Your task to perform on an android device: toggle airplane mode Image 0: 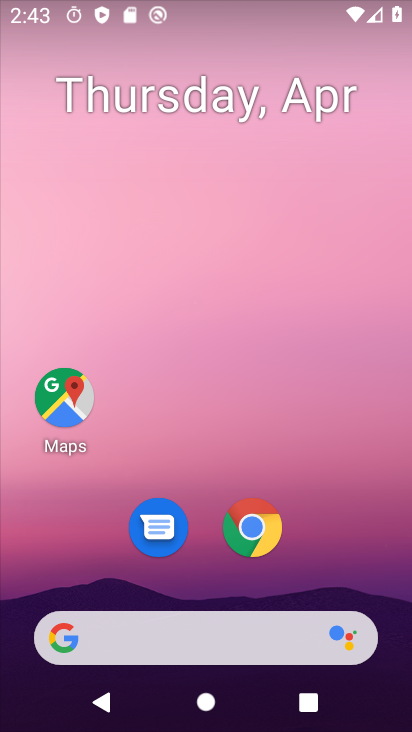
Step 0: drag from (303, 67) to (286, 549)
Your task to perform on an android device: toggle airplane mode Image 1: 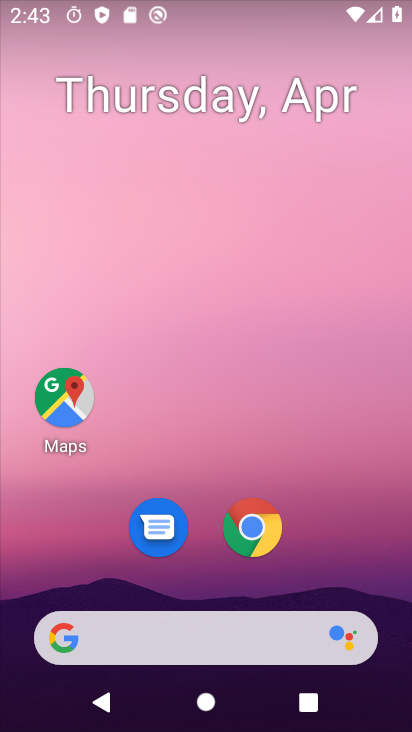
Step 1: drag from (305, 5) to (387, 575)
Your task to perform on an android device: toggle airplane mode Image 2: 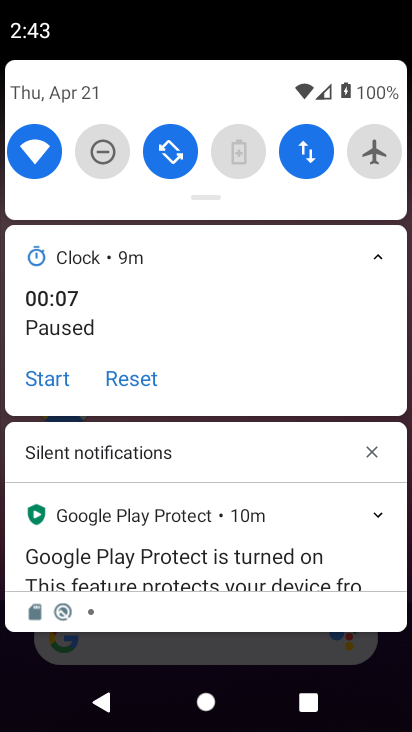
Step 2: click (384, 150)
Your task to perform on an android device: toggle airplane mode Image 3: 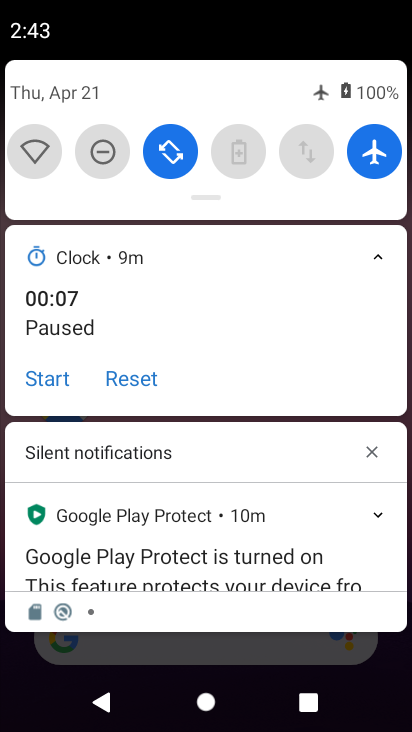
Step 3: task complete